Your task to perform on an android device: Open maps Image 0: 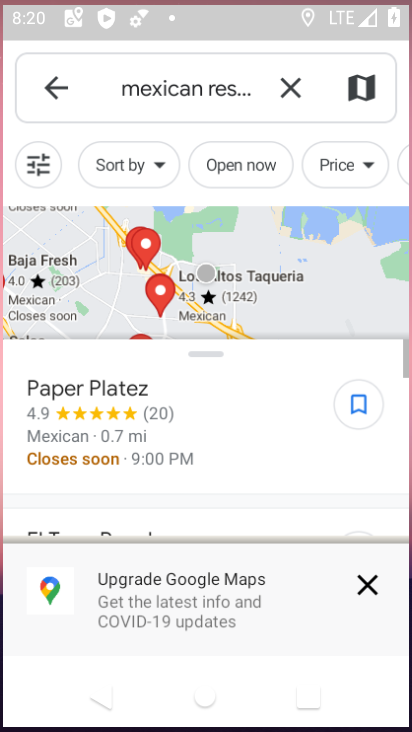
Step 0: drag from (213, 570) to (276, 12)
Your task to perform on an android device: Open maps Image 1: 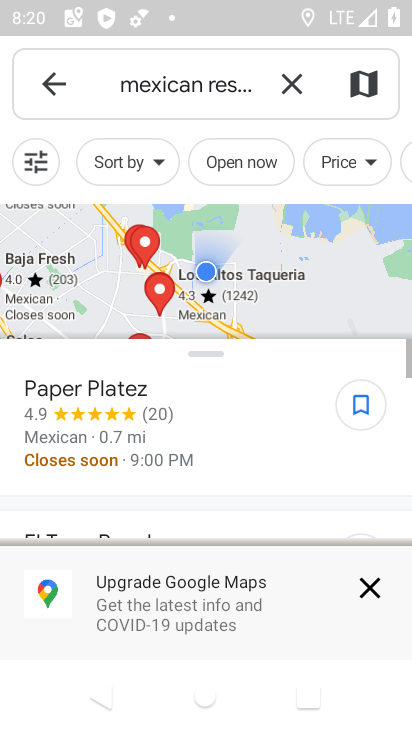
Step 1: press back button
Your task to perform on an android device: Open maps Image 2: 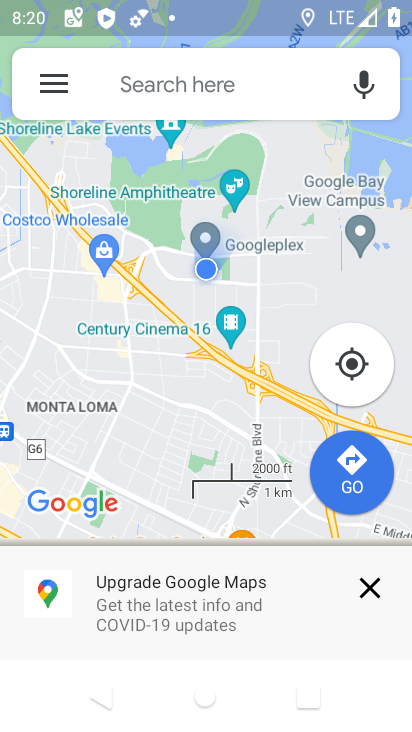
Step 2: press back button
Your task to perform on an android device: Open maps Image 3: 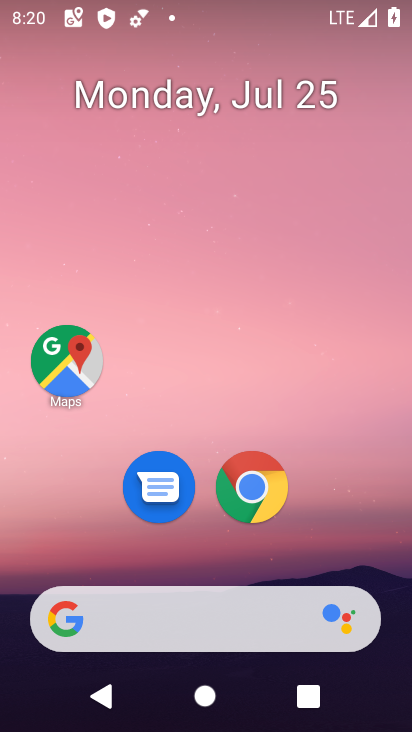
Step 3: click (45, 368)
Your task to perform on an android device: Open maps Image 4: 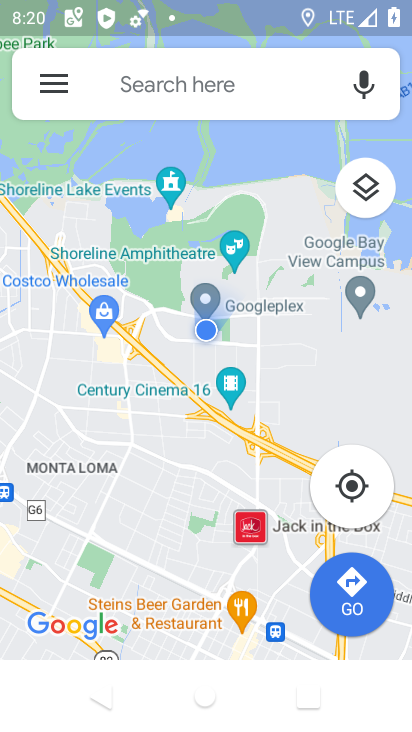
Step 4: task complete